Your task to perform on an android device: Open the stopwatch Image 0: 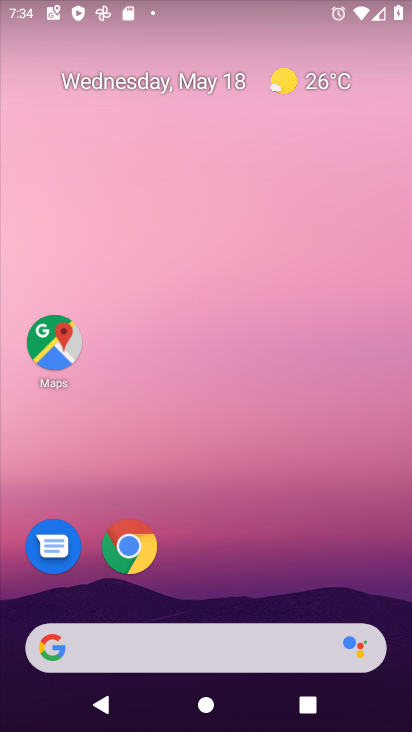
Step 0: drag from (401, 628) to (253, 71)
Your task to perform on an android device: Open the stopwatch Image 1: 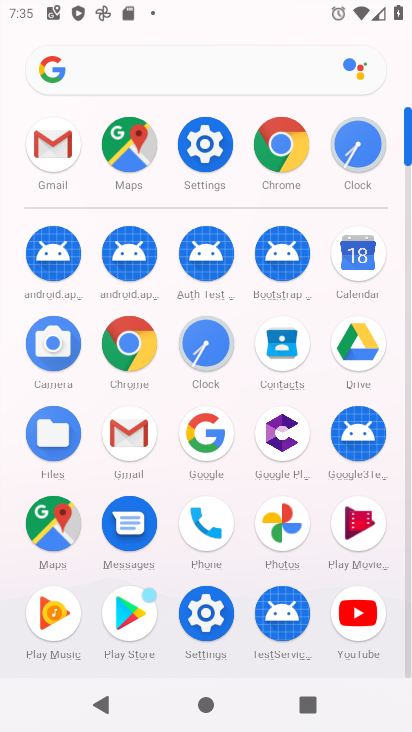
Step 1: click (204, 329)
Your task to perform on an android device: Open the stopwatch Image 2: 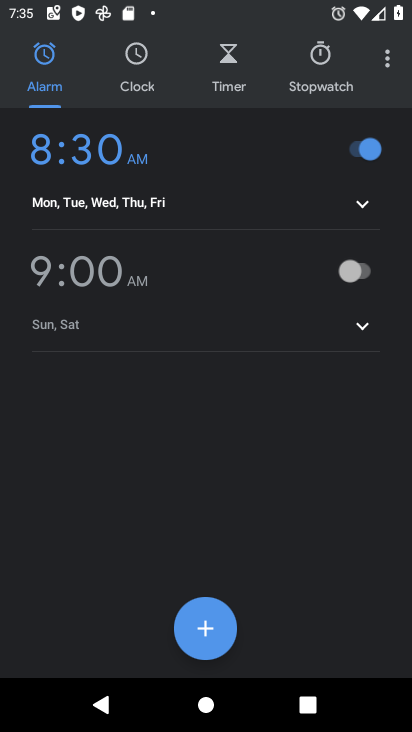
Step 2: click (331, 62)
Your task to perform on an android device: Open the stopwatch Image 3: 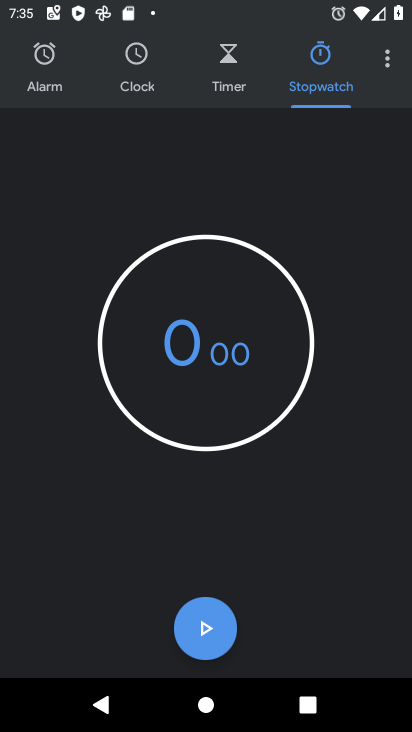
Step 3: task complete